Your task to perform on an android device: open app "Chime – Mobile Banking" (install if not already installed), go to login, and select forgot password Image 0: 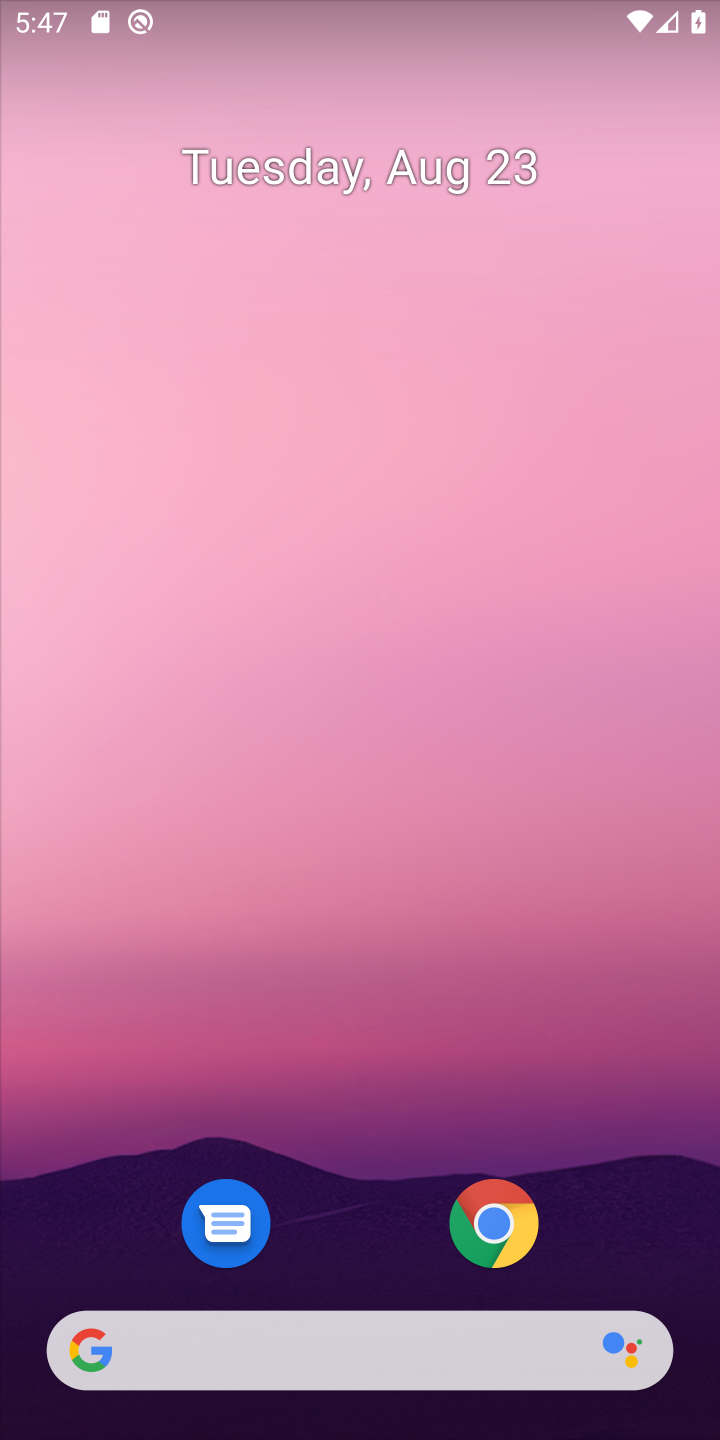
Step 0: drag from (375, 1338) to (505, 258)
Your task to perform on an android device: open app "Chime – Mobile Banking" (install if not already installed), go to login, and select forgot password Image 1: 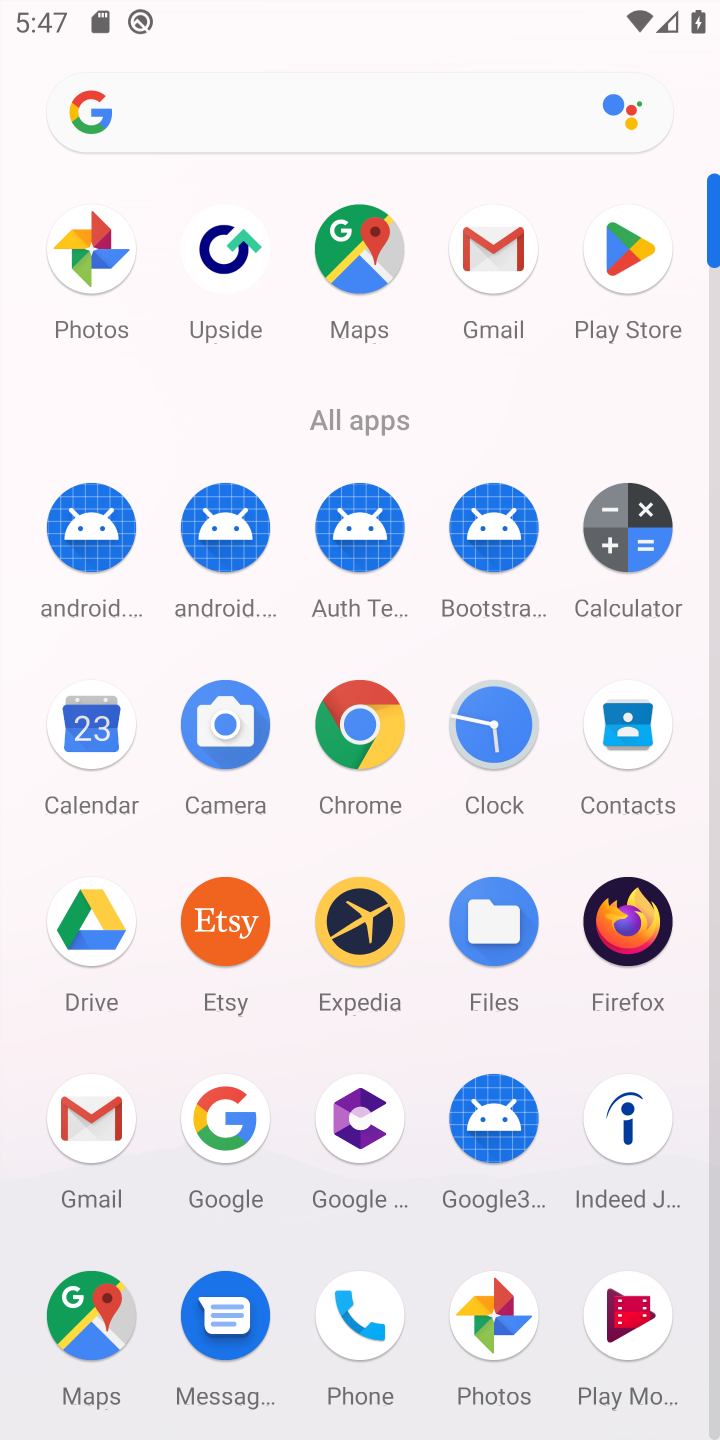
Step 1: click (608, 254)
Your task to perform on an android device: open app "Chime – Mobile Banking" (install if not already installed), go to login, and select forgot password Image 2: 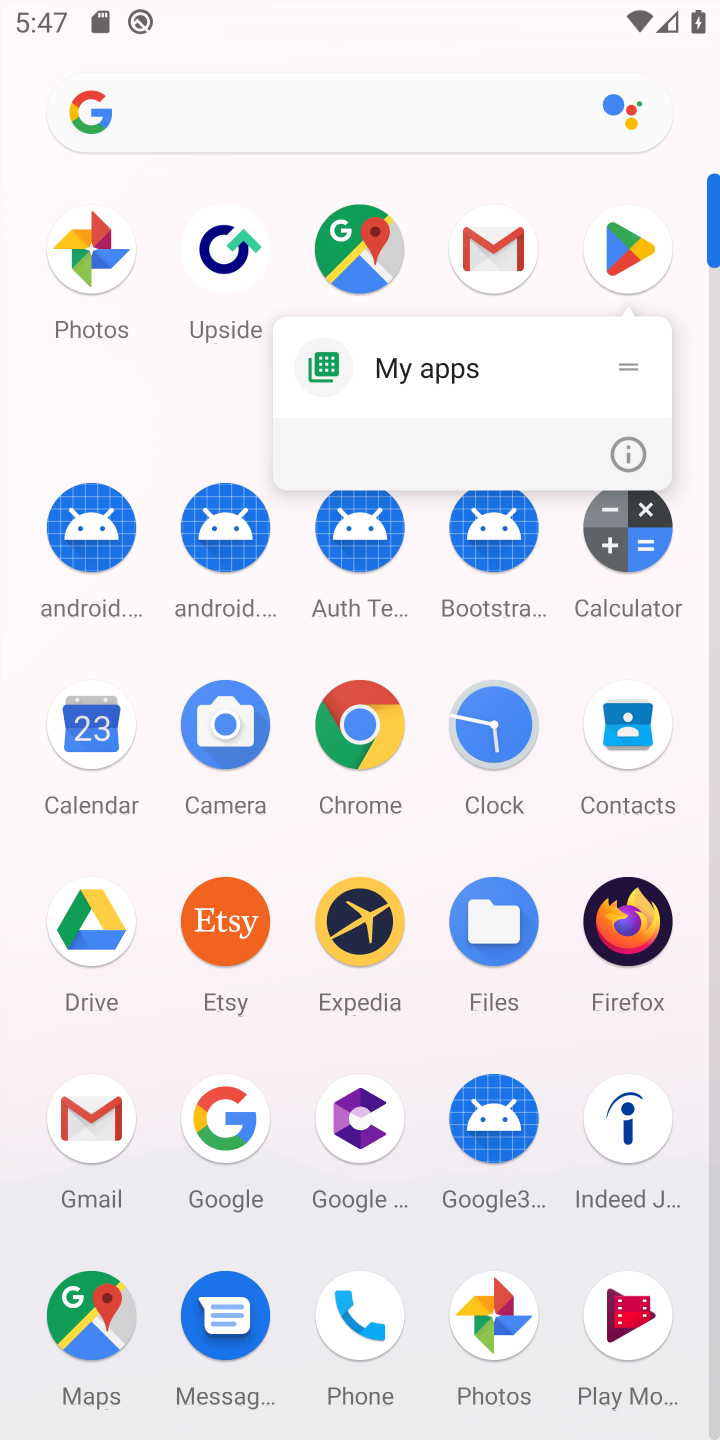
Step 2: click (621, 228)
Your task to perform on an android device: open app "Chime – Mobile Banking" (install if not already installed), go to login, and select forgot password Image 3: 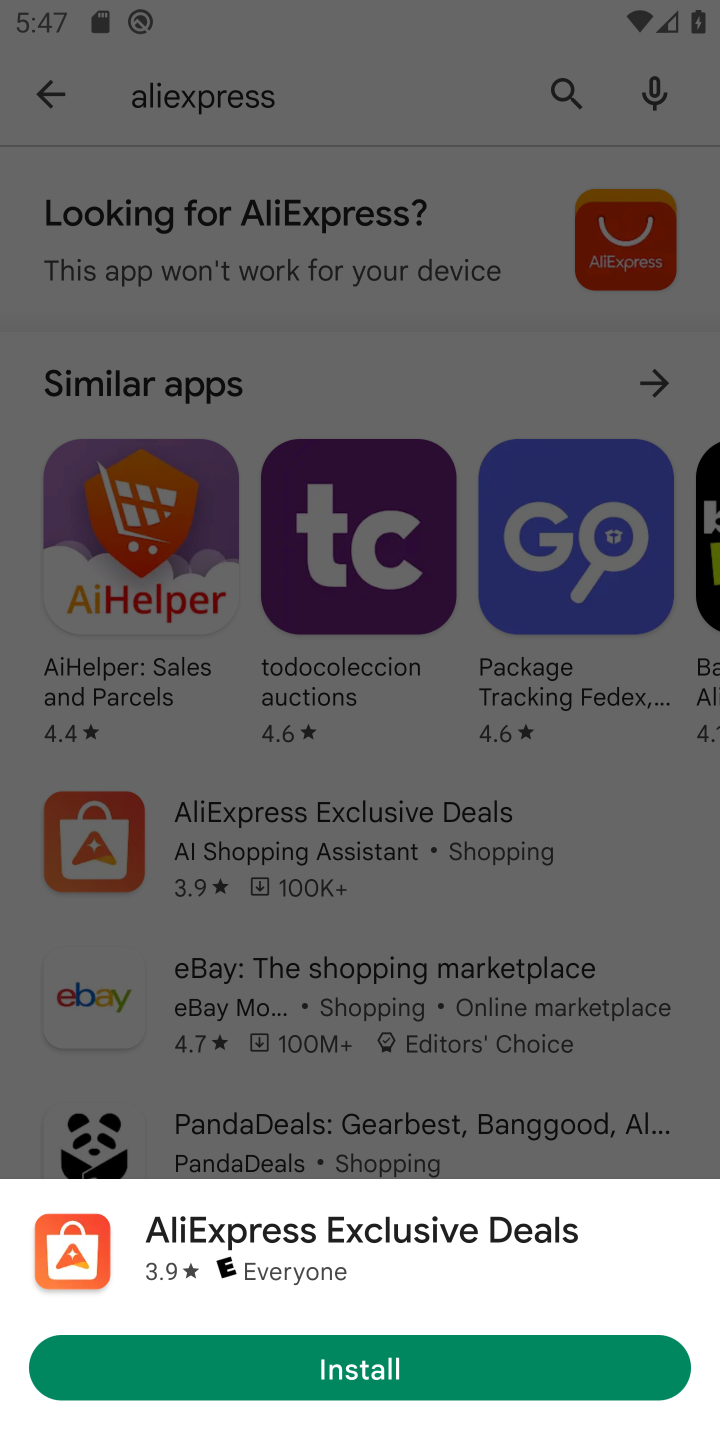
Step 3: press back button
Your task to perform on an android device: open app "Chime – Mobile Banking" (install if not already installed), go to login, and select forgot password Image 4: 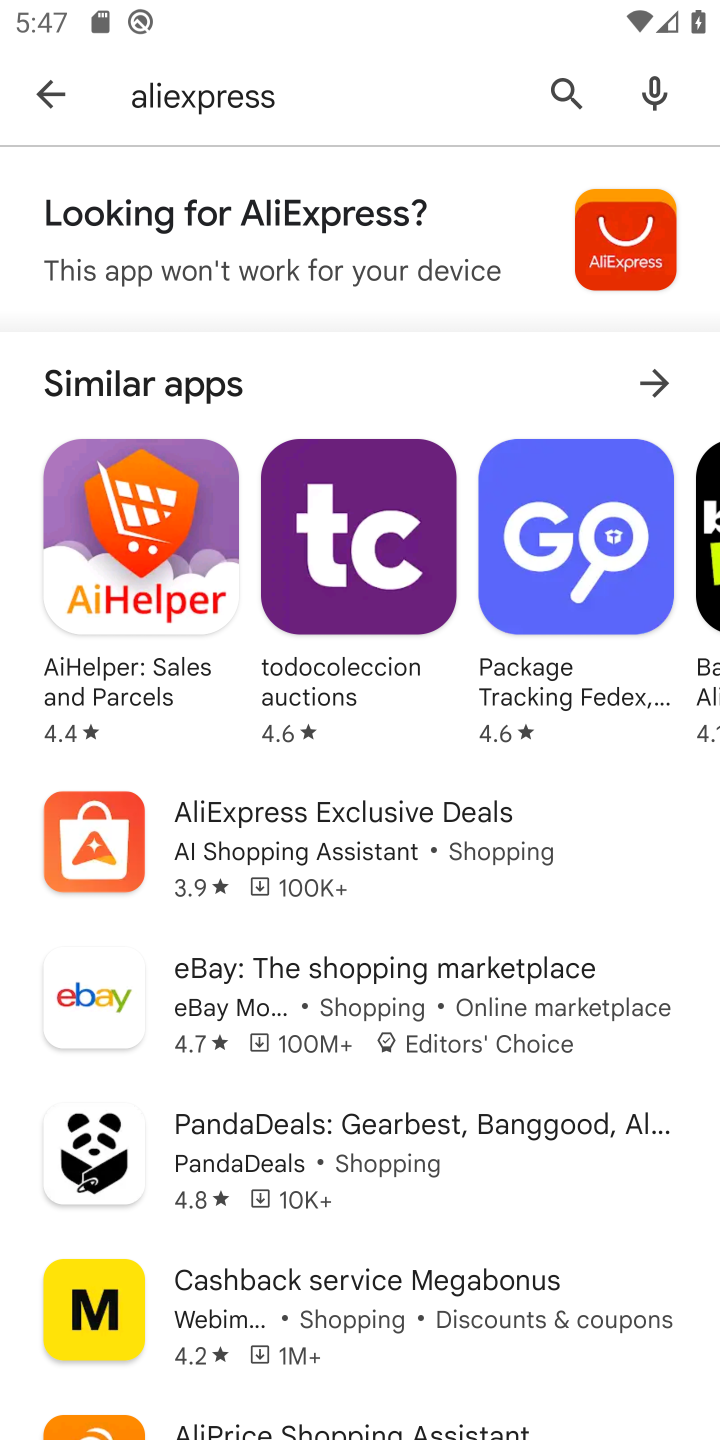
Step 4: click (565, 110)
Your task to perform on an android device: open app "Chime – Mobile Banking" (install if not already installed), go to login, and select forgot password Image 5: 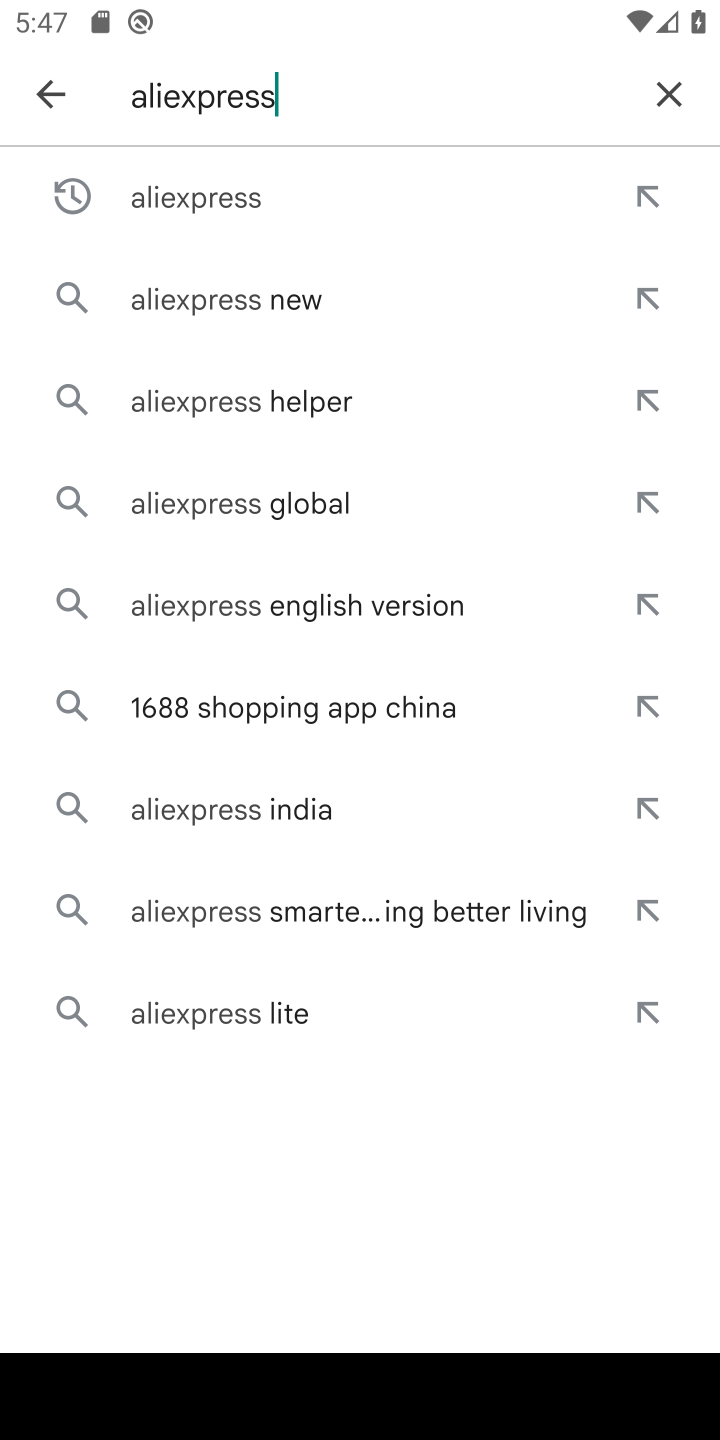
Step 5: click (670, 100)
Your task to perform on an android device: open app "Chime – Mobile Banking" (install if not already installed), go to login, and select forgot password Image 6: 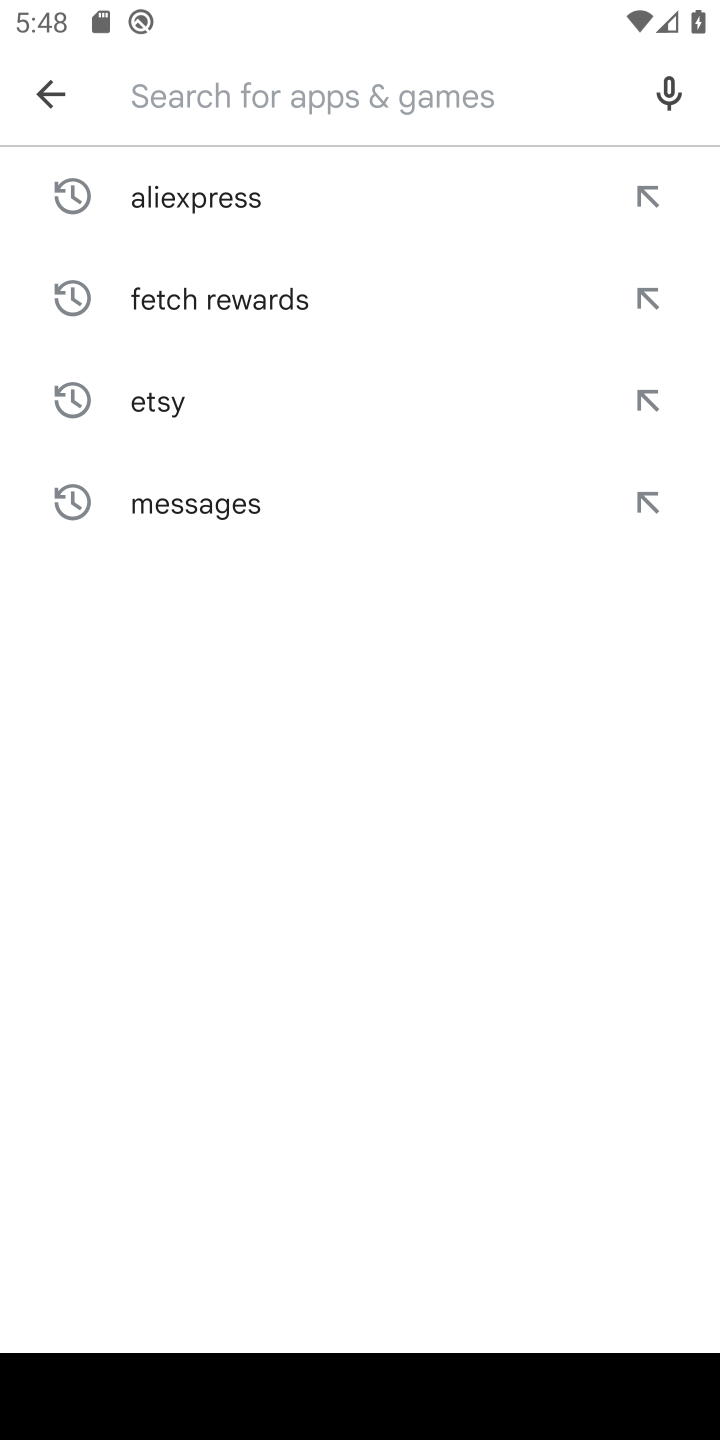
Step 6: type "chime"
Your task to perform on an android device: open app "Chime – Mobile Banking" (install if not already installed), go to login, and select forgot password Image 7: 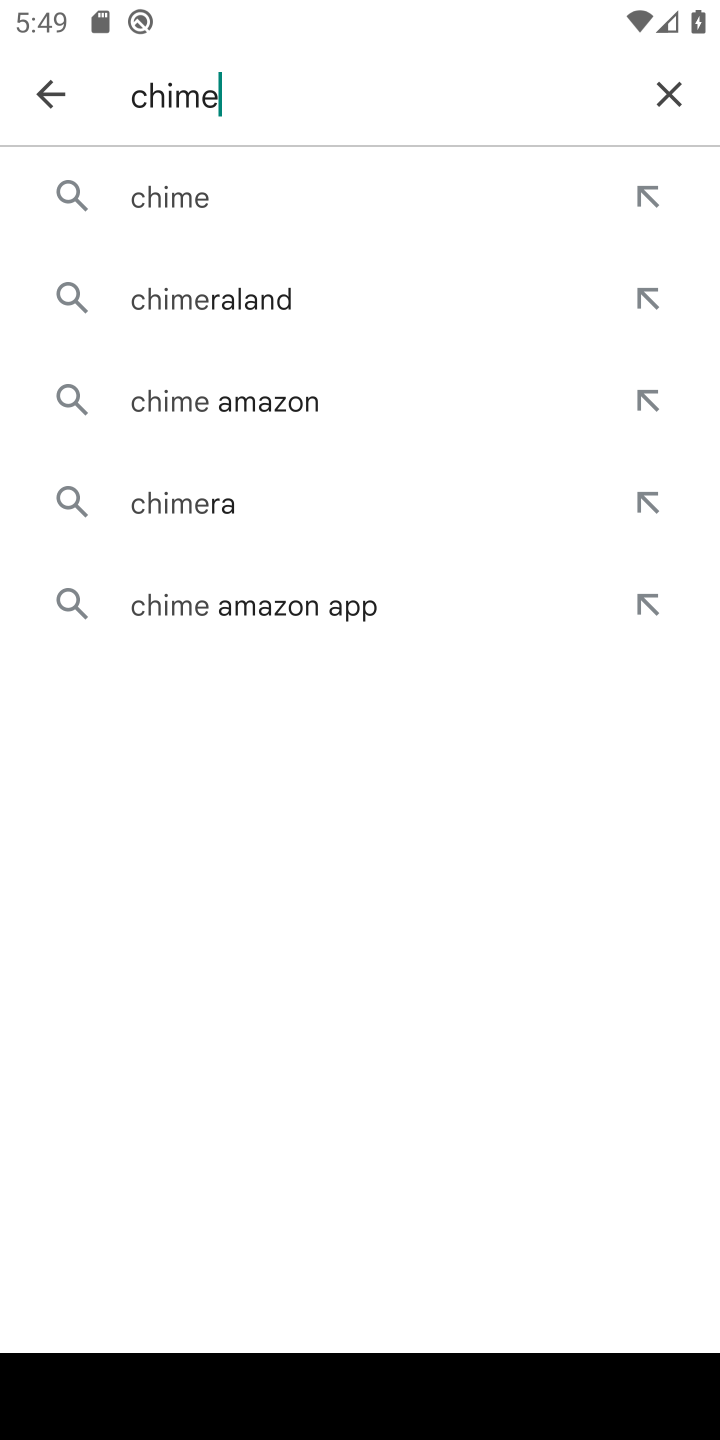
Step 7: click (173, 181)
Your task to perform on an android device: open app "Chime – Mobile Banking" (install if not already installed), go to login, and select forgot password Image 8: 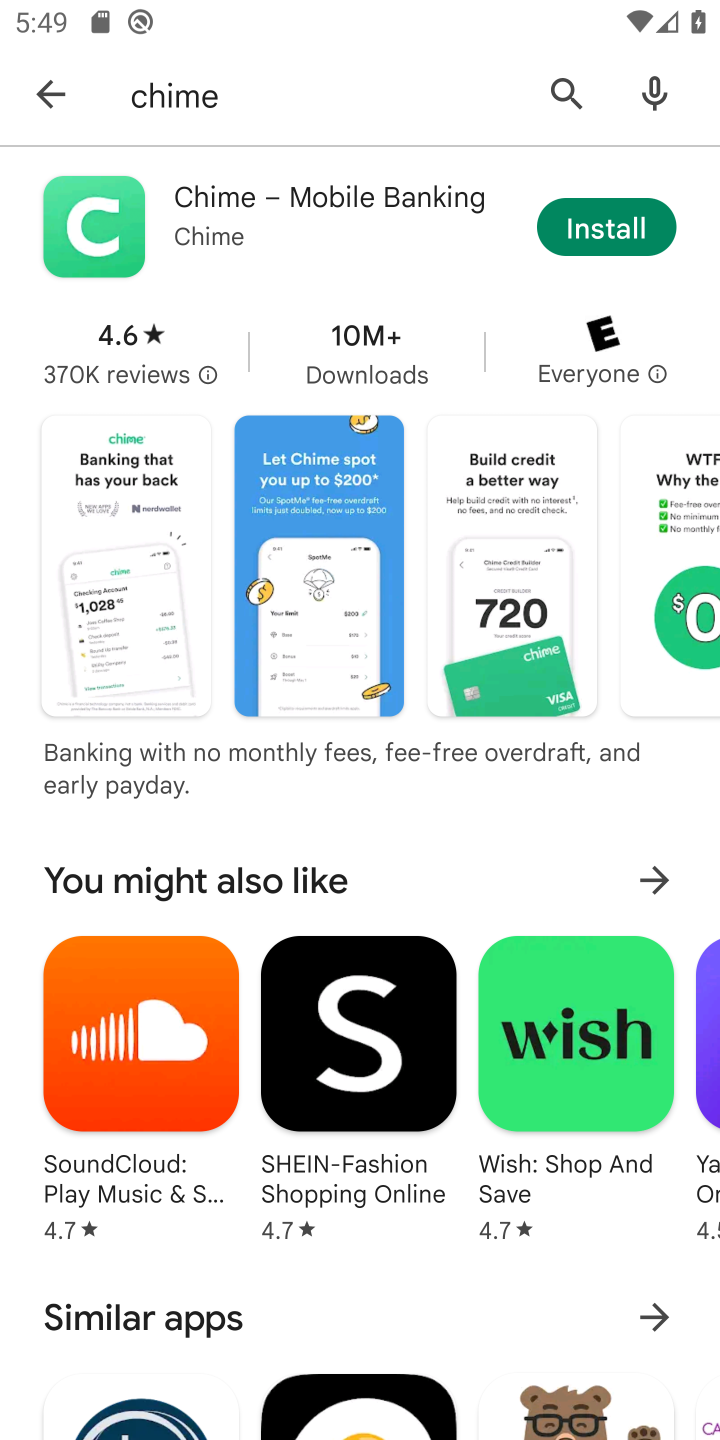
Step 8: click (573, 238)
Your task to perform on an android device: open app "Chime – Mobile Banking" (install if not already installed), go to login, and select forgot password Image 9: 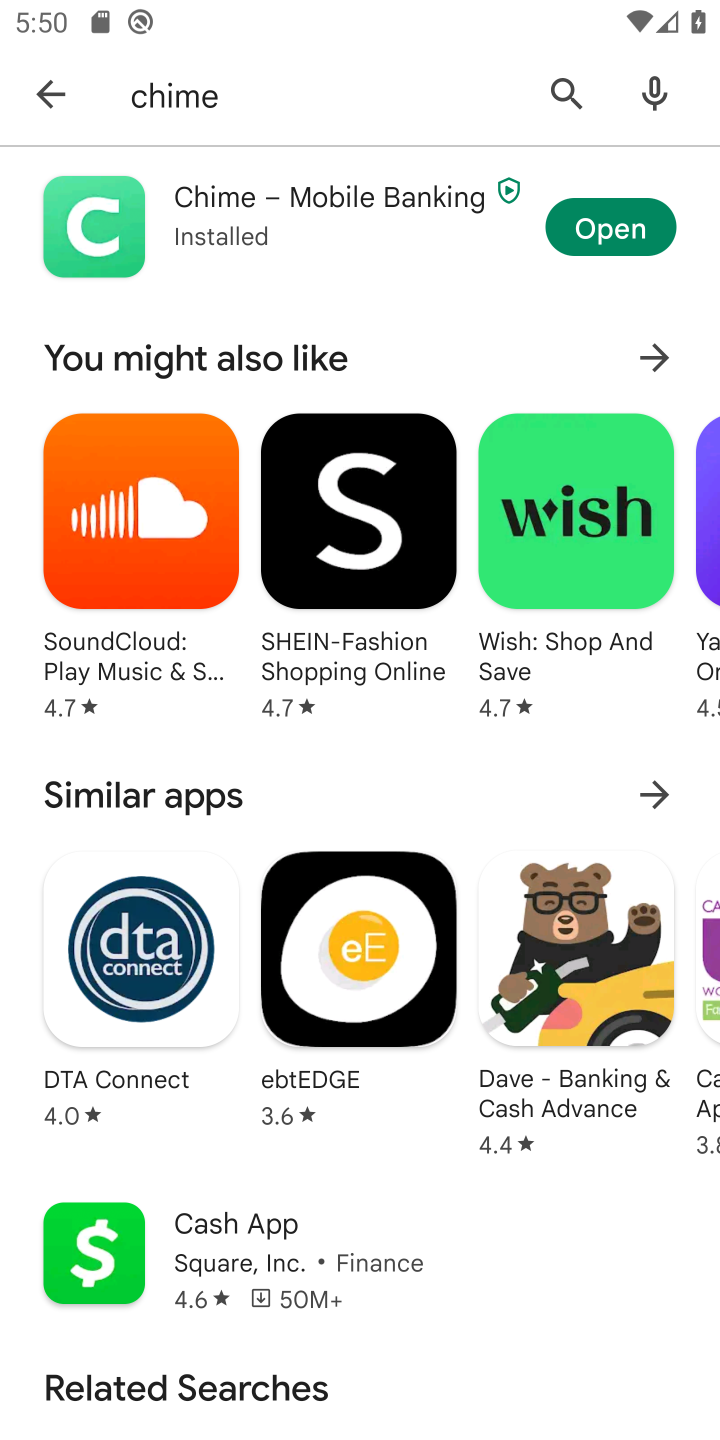
Step 9: click (581, 227)
Your task to perform on an android device: open app "Chime – Mobile Banking" (install if not already installed), go to login, and select forgot password Image 10: 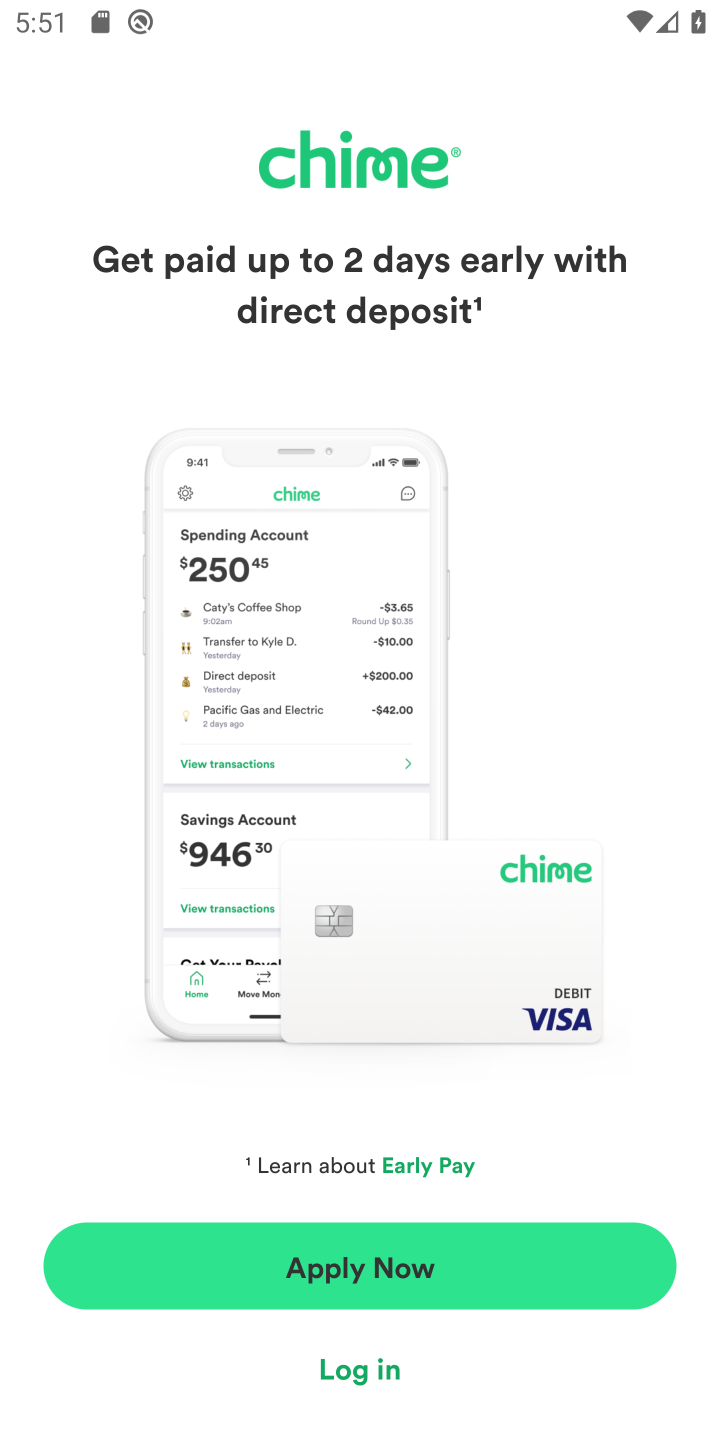
Step 10: click (355, 1379)
Your task to perform on an android device: open app "Chime – Mobile Banking" (install if not already installed), go to login, and select forgot password Image 11: 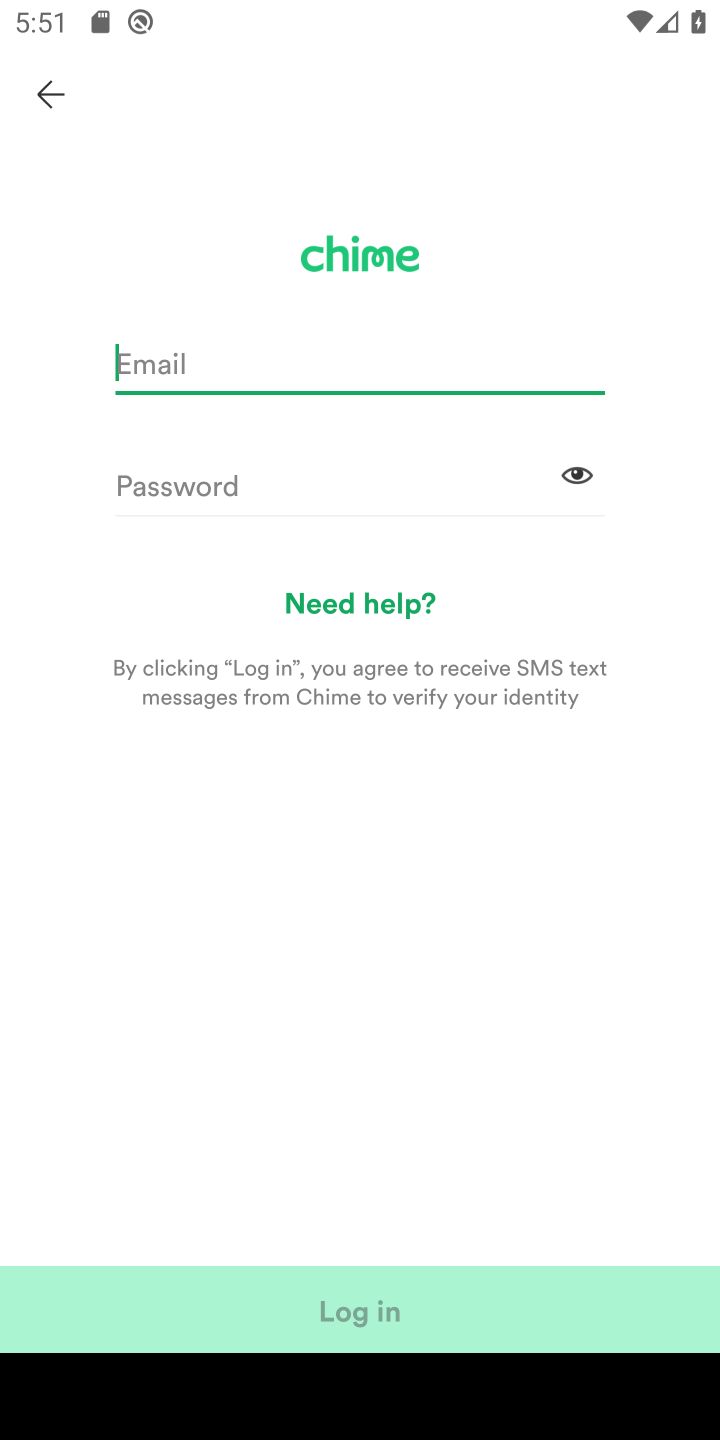
Step 11: click (351, 606)
Your task to perform on an android device: open app "Chime – Mobile Banking" (install if not already installed), go to login, and select forgot password Image 12: 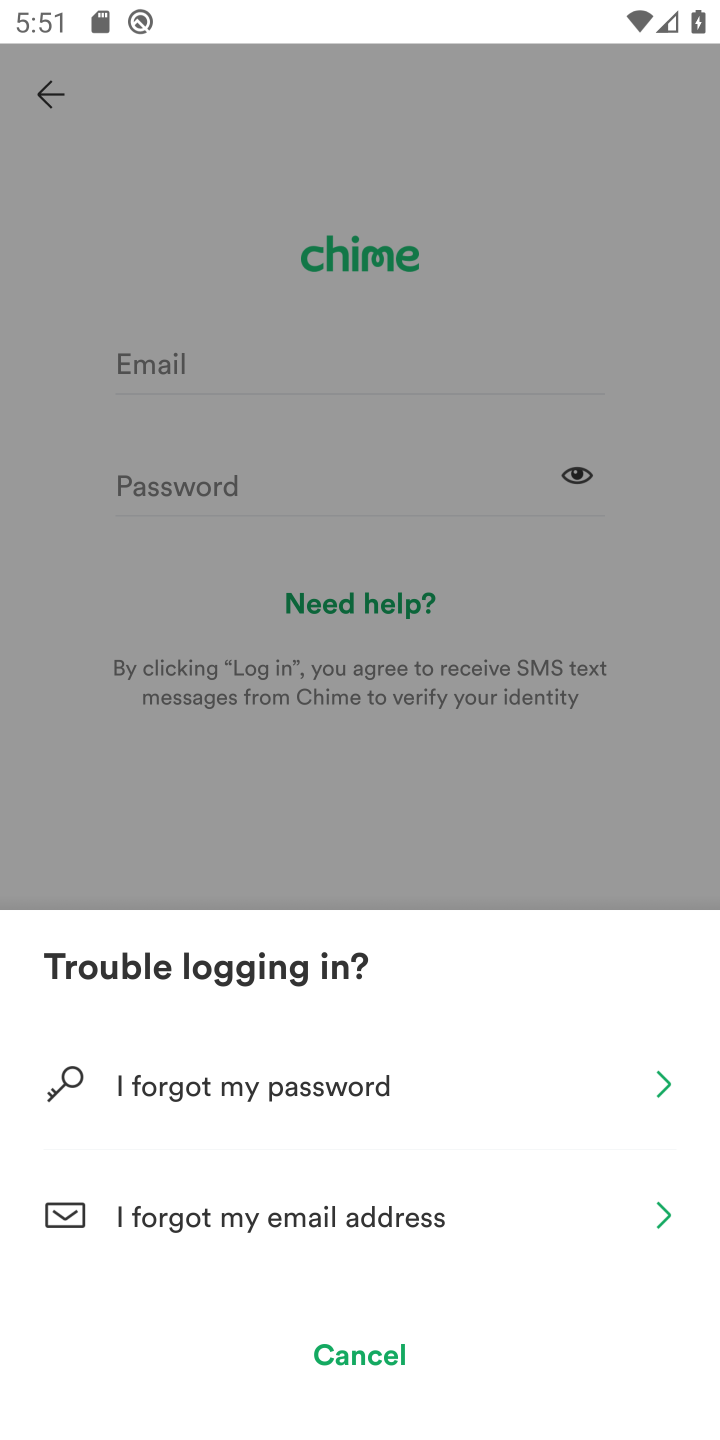
Step 12: click (353, 1076)
Your task to perform on an android device: open app "Chime – Mobile Banking" (install if not already installed), go to login, and select forgot password Image 13: 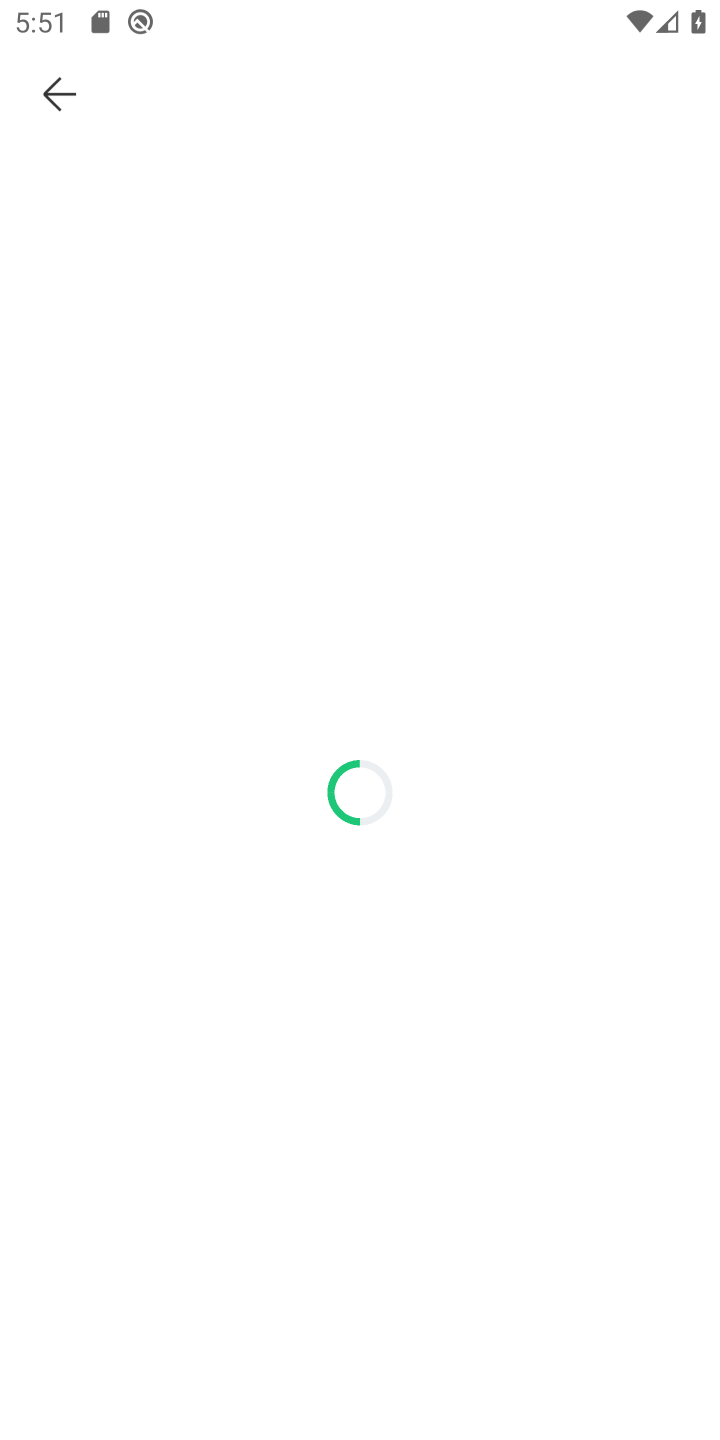
Step 13: task complete